Your task to perform on an android device: Go to Wikipedia Image 0: 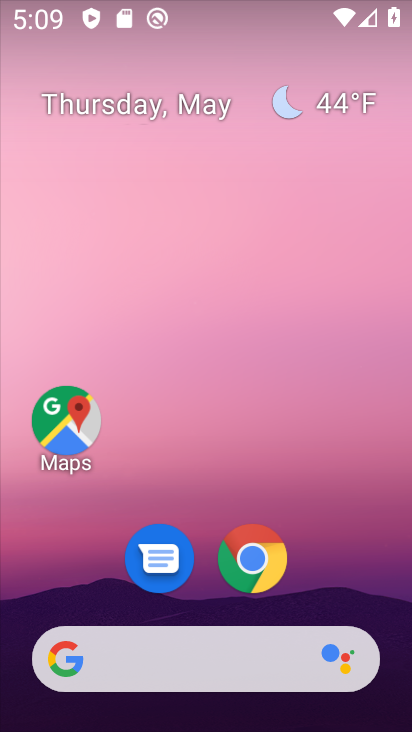
Step 0: drag from (302, 541) to (228, 20)
Your task to perform on an android device: Go to Wikipedia Image 1: 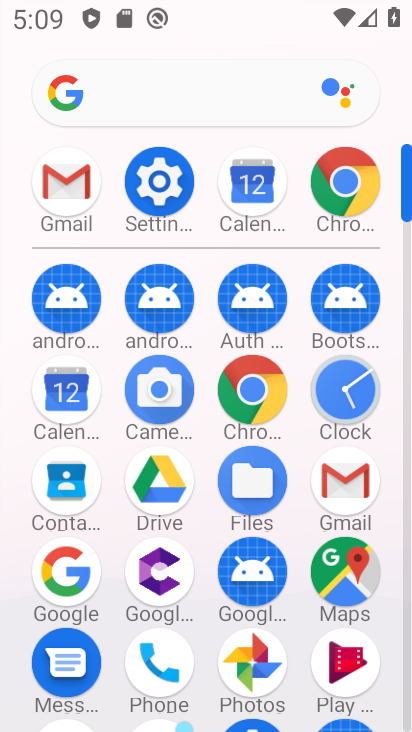
Step 1: click (246, 385)
Your task to perform on an android device: Go to Wikipedia Image 2: 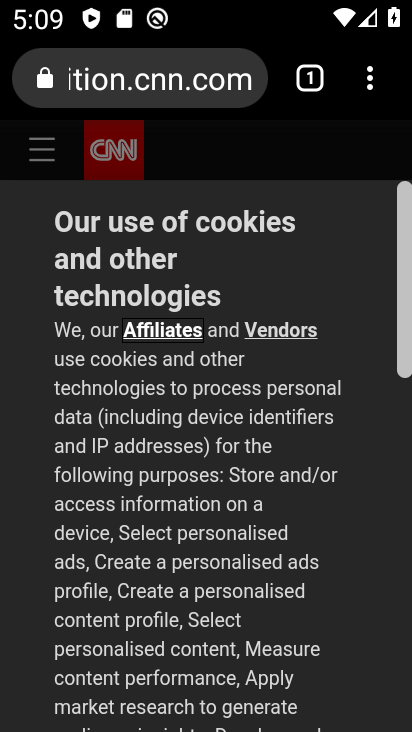
Step 2: click (167, 77)
Your task to perform on an android device: Go to Wikipedia Image 3: 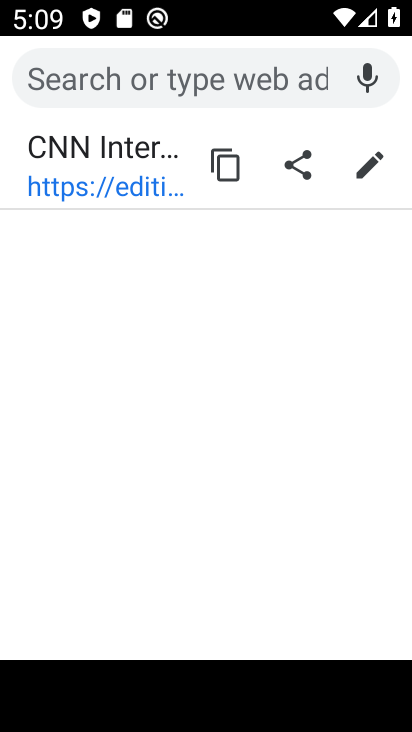
Step 3: type "Wikipedia"
Your task to perform on an android device: Go to Wikipedia Image 4: 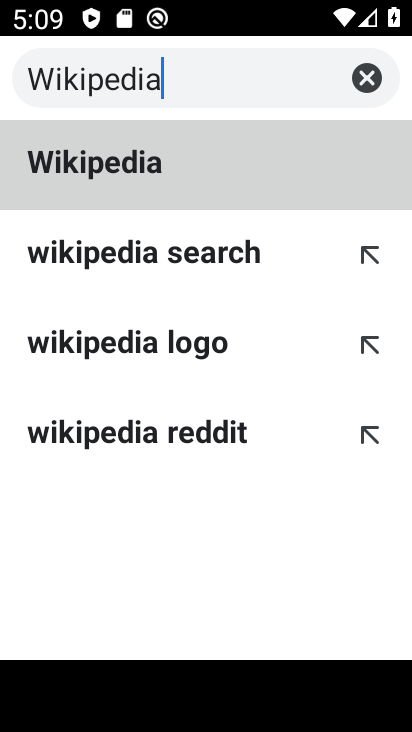
Step 4: type ""
Your task to perform on an android device: Go to Wikipedia Image 5: 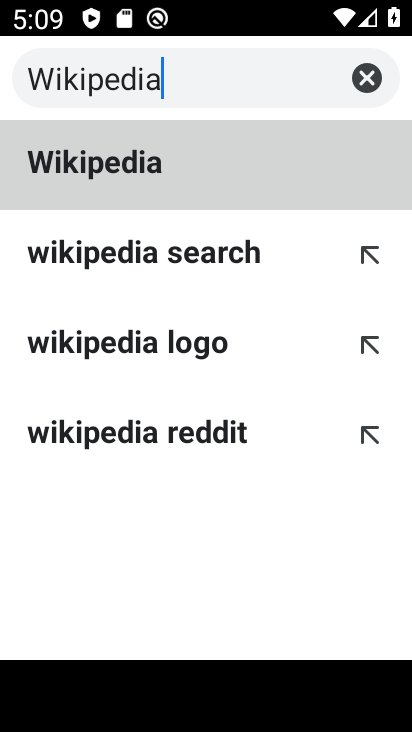
Step 5: click (145, 168)
Your task to perform on an android device: Go to Wikipedia Image 6: 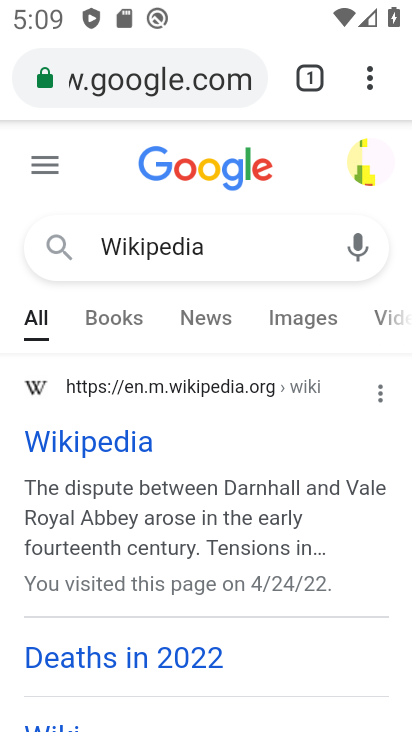
Step 6: click (88, 449)
Your task to perform on an android device: Go to Wikipedia Image 7: 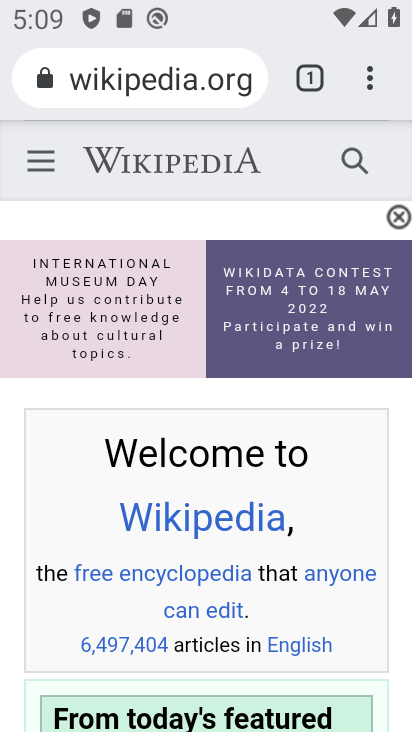
Step 7: task complete